Your task to perform on an android device: Show me popular games on the Play Store Image 0: 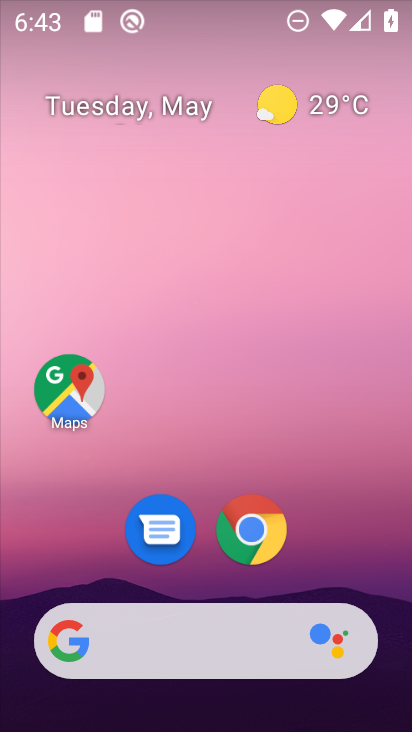
Step 0: drag from (386, 628) to (324, 50)
Your task to perform on an android device: Show me popular games on the Play Store Image 1: 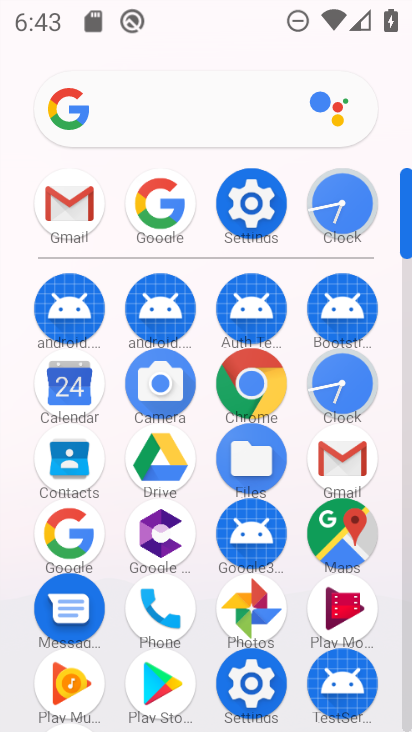
Step 1: click (158, 673)
Your task to perform on an android device: Show me popular games on the Play Store Image 2: 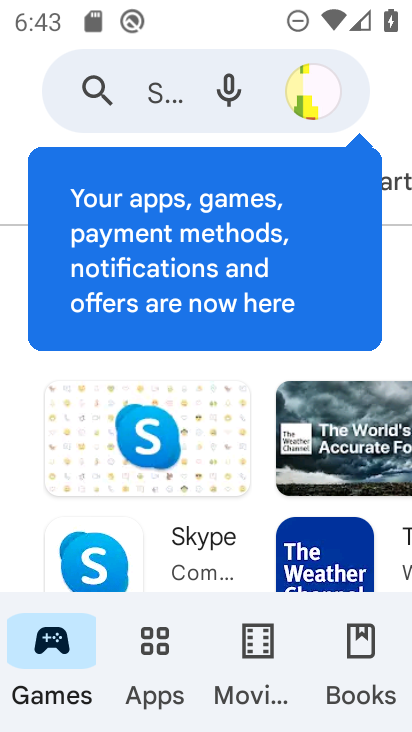
Step 2: task complete